Your task to perform on an android device: set the stopwatch Image 0: 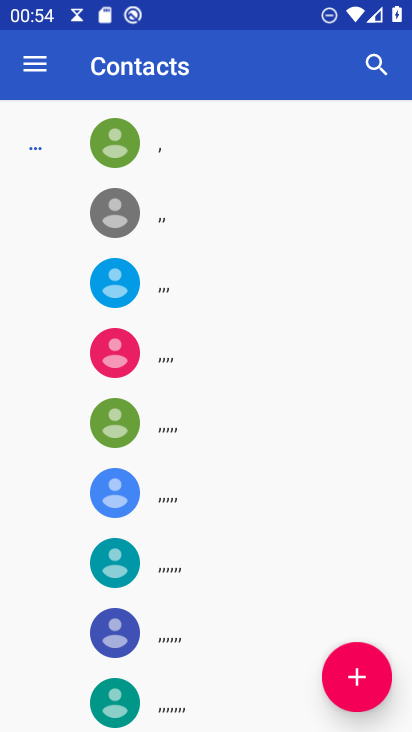
Step 0: press home button
Your task to perform on an android device: set the stopwatch Image 1: 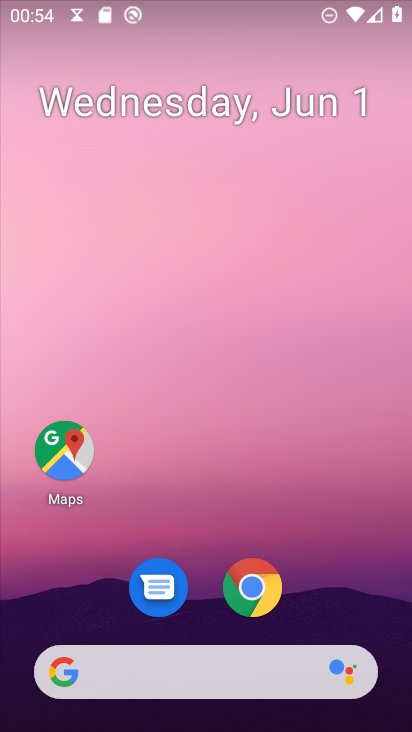
Step 1: drag from (315, 526) to (308, 61)
Your task to perform on an android device: set the stopwatch Image 2: 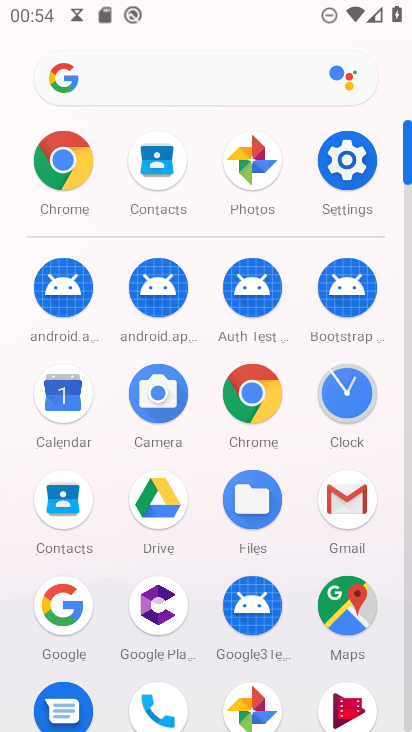
Step 2: click (340, 397)
Your task to perform on an android device: set the stopwatch Image 3: 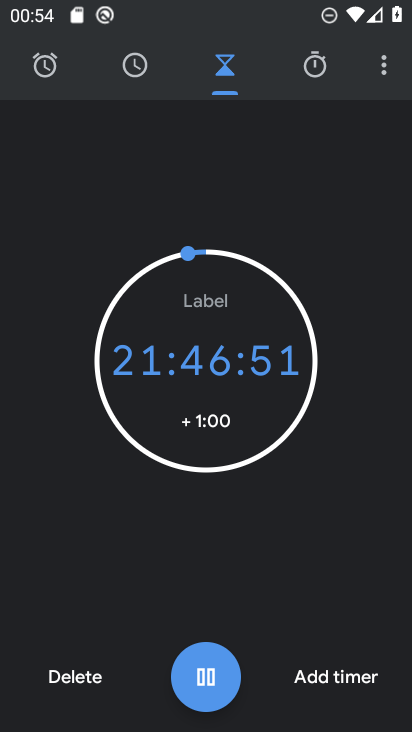
Step 3: click (300, 71)
Your task to perform on an android device: set the stopwatch Image 4: 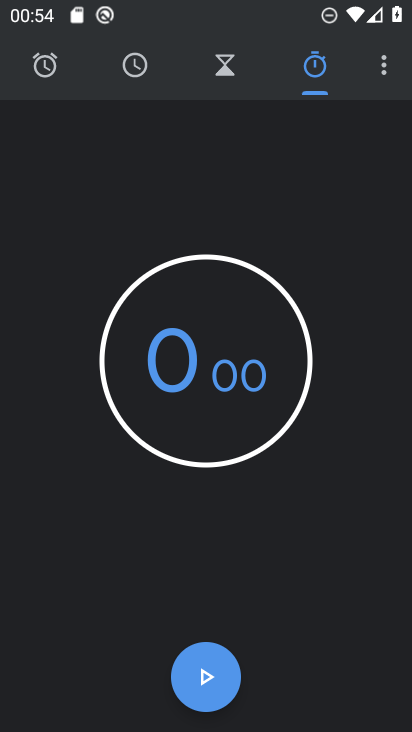
Step 4: click (209, 658)
Your task to perform on an android device: set the stopwatch Image 5: 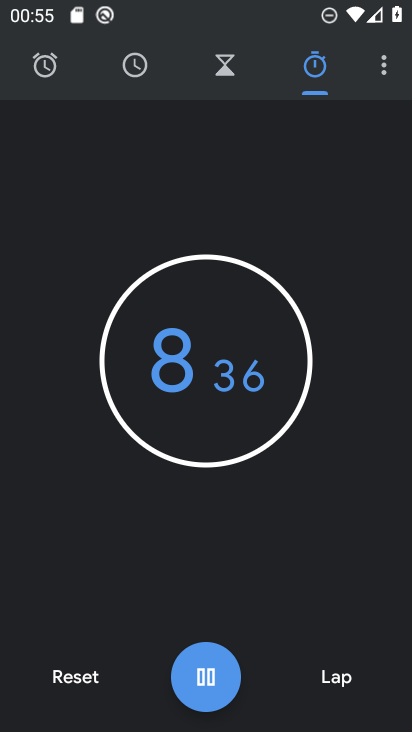
Step 5: task complete